Your task to perform on an android device: turn smart compose on in the gmail app Image 0: 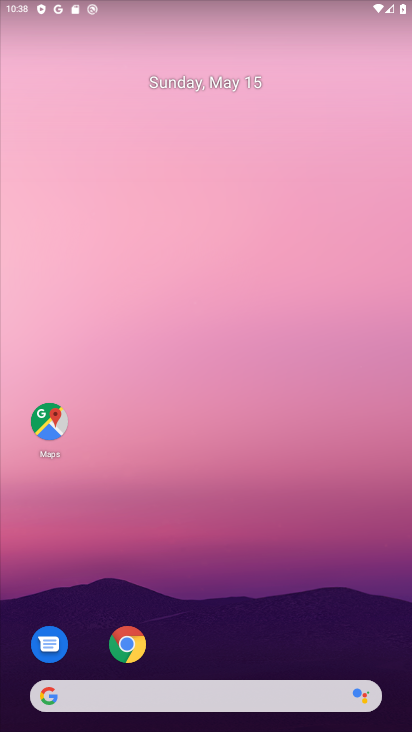
Step 0: drag from (232, 641) to (175, 169)
Your task to perform on an android device: turn smart compose on in the gmail app Image 1: 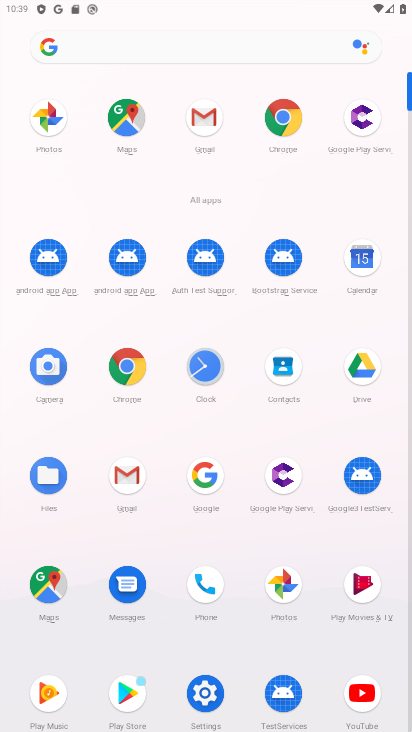
Step 1: click (207, 119)
Your task to perform on an android device: turn smart compose on in the gmail app Image 2: 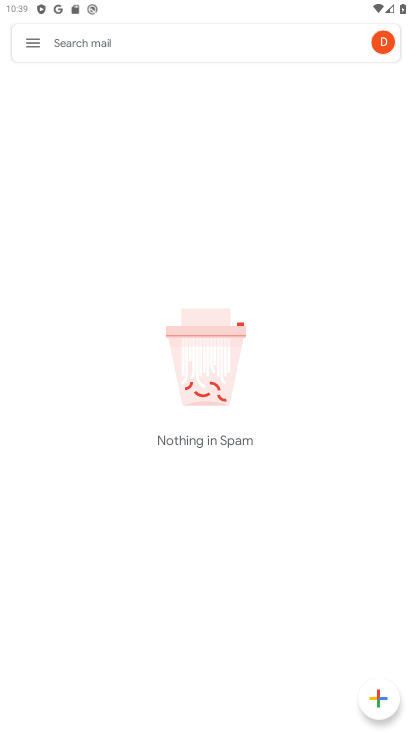
Step 2: click (34, 45)
Your task to perform on an android device: turn smart compose on in the gmail app Image 3: 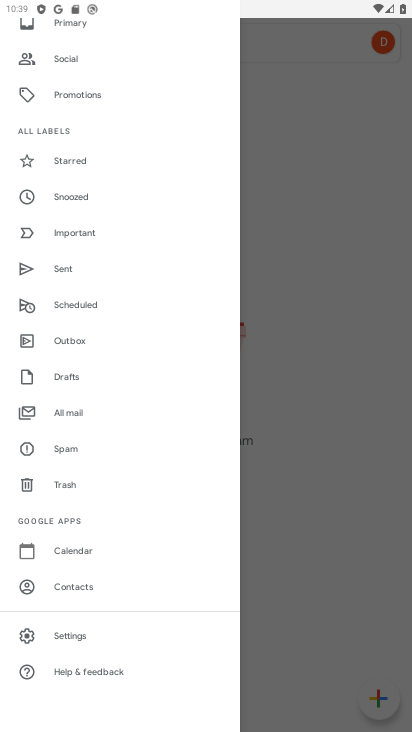
Step 3: click (108, 644)
Your task to perform on an android device: turn smart compose on in the gmail app Image 4: 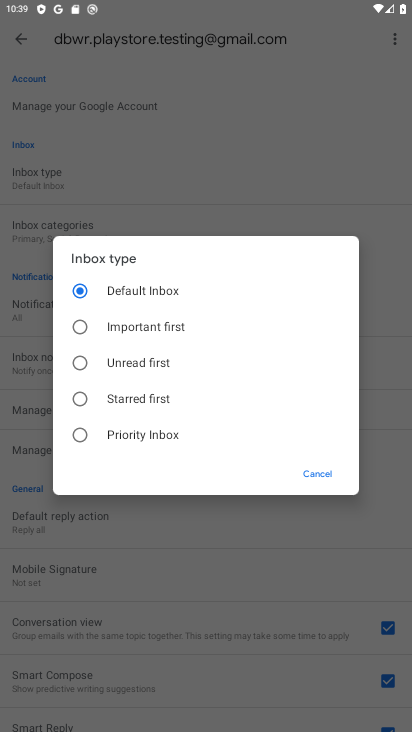
Step 4: click (323, 472)
Your task to perform on an android device: turn smart compose on in the gmail app Image 5: 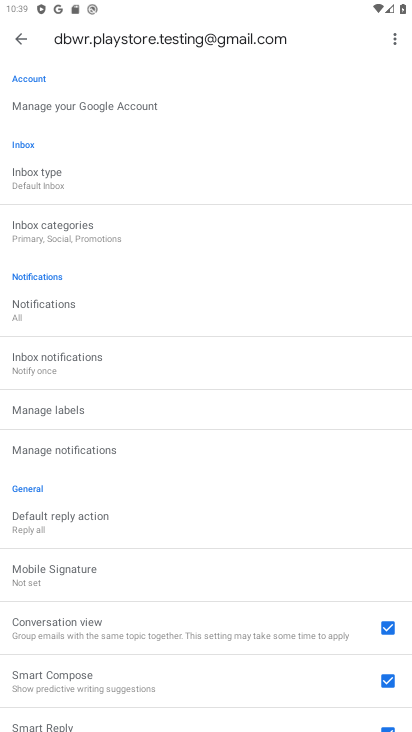
Step 5: task complete